Your task to perform on an android device: open a bookmark in the chrome app Image 0: 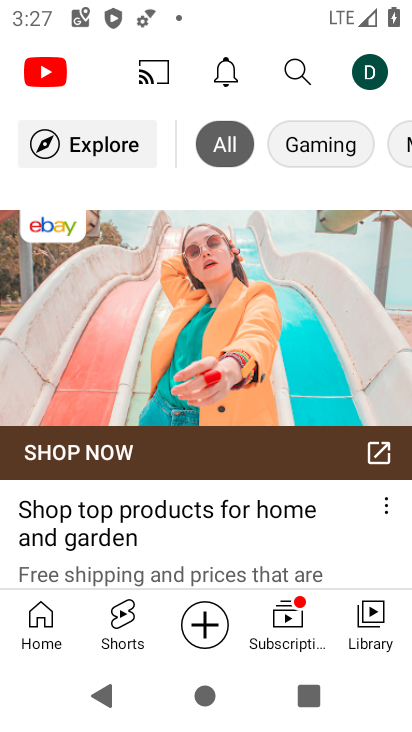
Step 0: press home button
Your task to perform on an android device: open a bookmark in the chrome app Image 1: 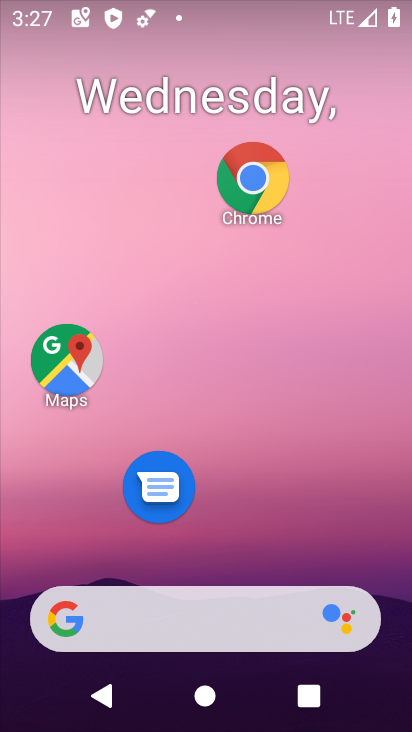
Step 1: click (251, 183)
Your task to perform on an android device: open a bookmark in the chrome app Image 2: 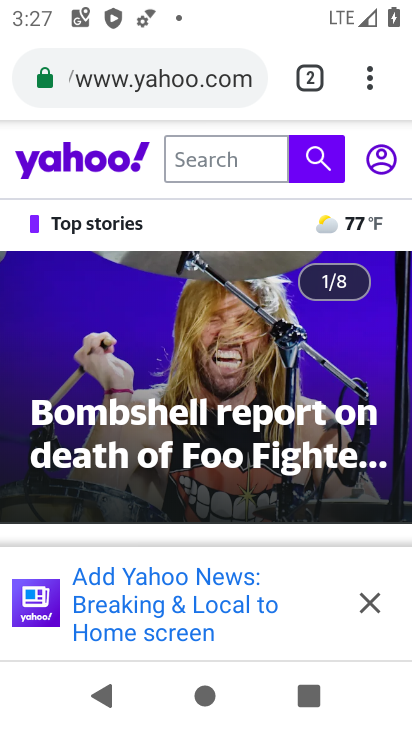
Step 2: click (373, 72)
Your task to perform on an android device: open a bookmark in the chrome app Image 3: 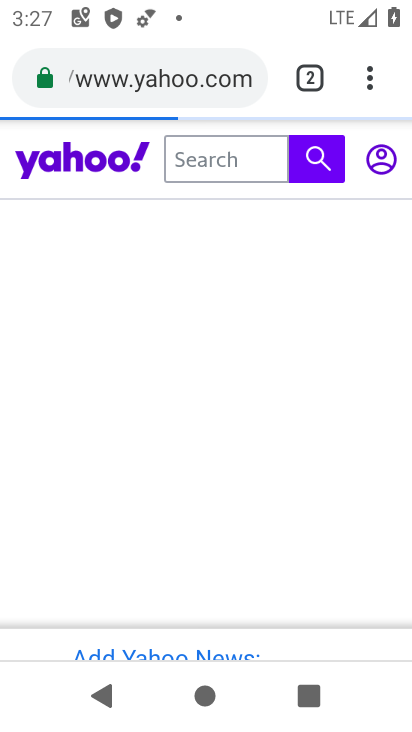
Step 3: click (371, 75)
Your task to perform on an android device: open a bookmark in the chrome app Image 4: 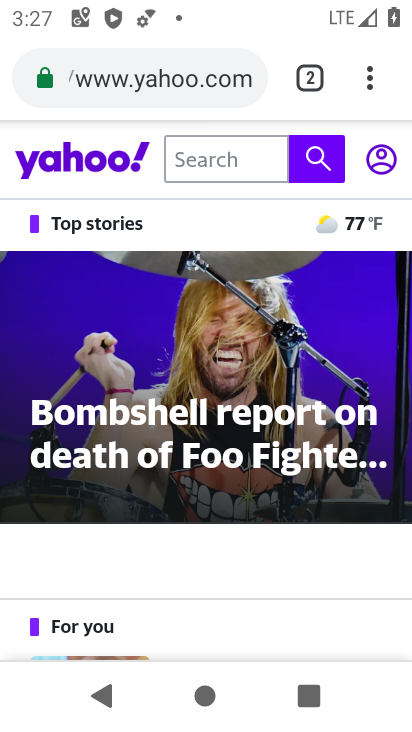
Step 4: click (382, 99)
Your task to perform on an android device: open a bookmark in the chrome app Image 5: 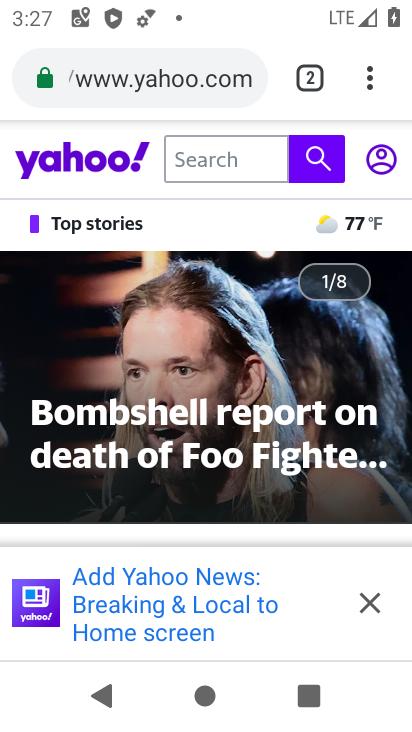
Step 5: click (360, 98)
Your task to perform on an android device: open a bookmark in the chrome app Image 6: 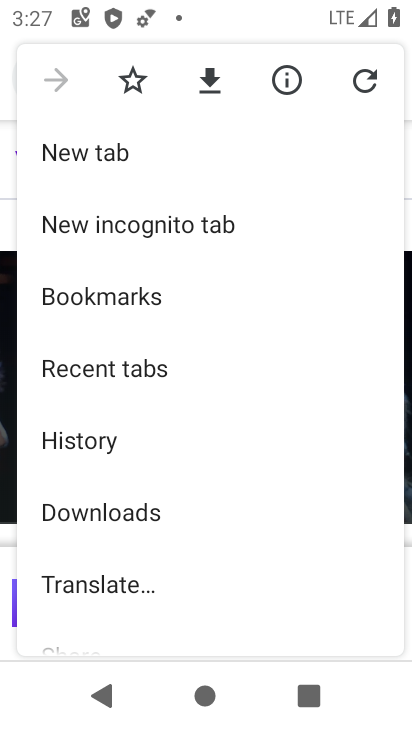
Step 6: click (165, 301)
Your task to perform on an android device: open a bookmark in the chrome app Image 7: 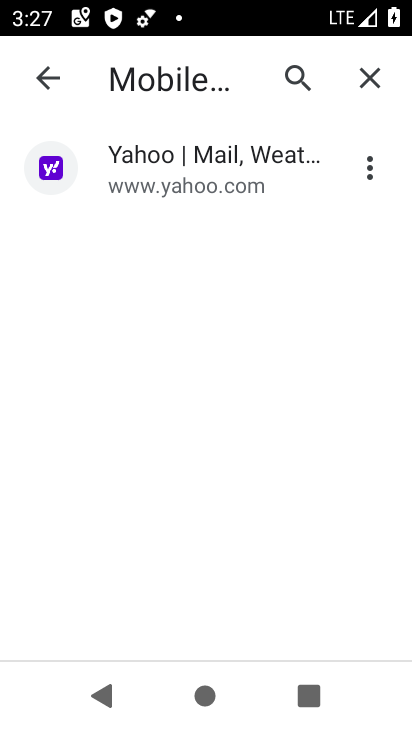
Step 7: click (157, 177)
Your task to perform on an android device: open a bookmark in the chrome app Image 8: 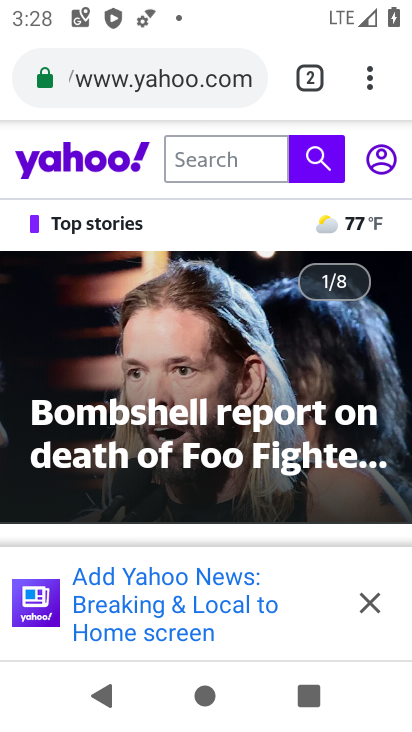
Step 8: task complete